Your task to perform on an android device: Go to location settings Image 0: 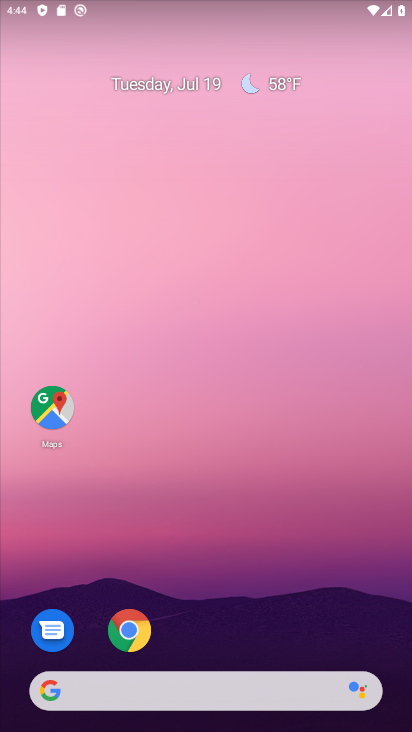
Step 0: drag from (258, 503) to (222, 298)
Your task to perform on an android device: Go to location settings Image 1: 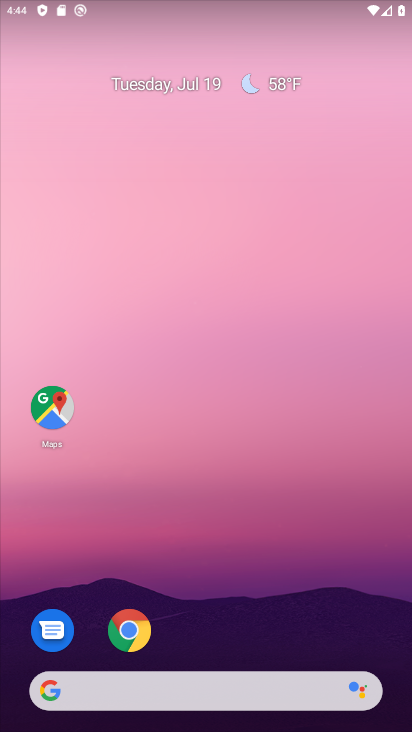
Step 1: drag from (196, 578) to (131, 107)
Your task to perform on an android device: Go to location settings Image 2: 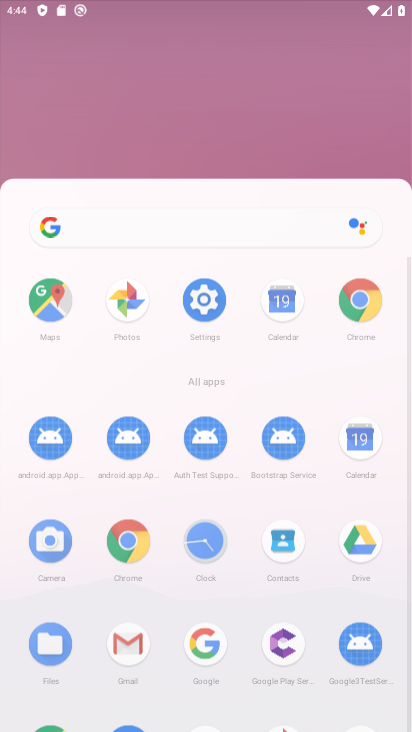
Step 2: drag from (191, 539) to (168, 287)
Your task to perform on an android device: Go to location settings Image 3: 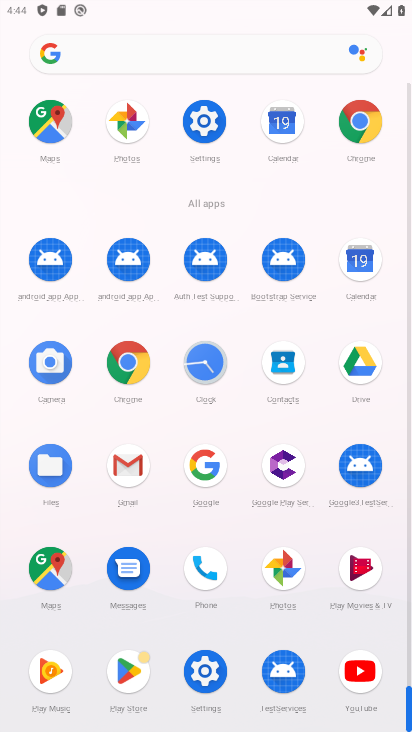
Step 3: click (190, 115)
Your task to perform on an android device: Go to location settings Image 4: 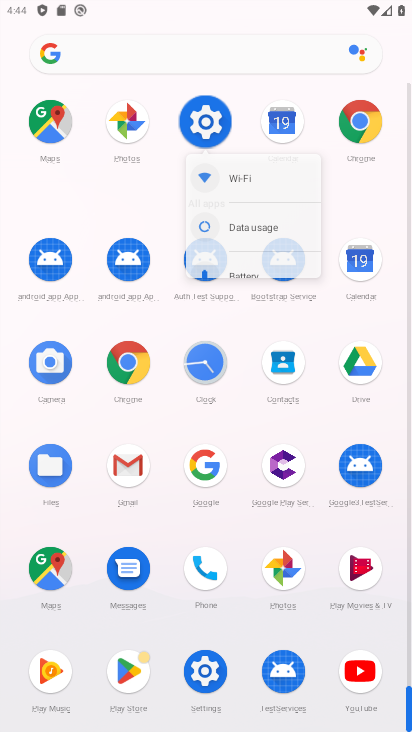
Step 4: click (202, 126)
Your task to perform on an android device: Go to location settings Image 5: 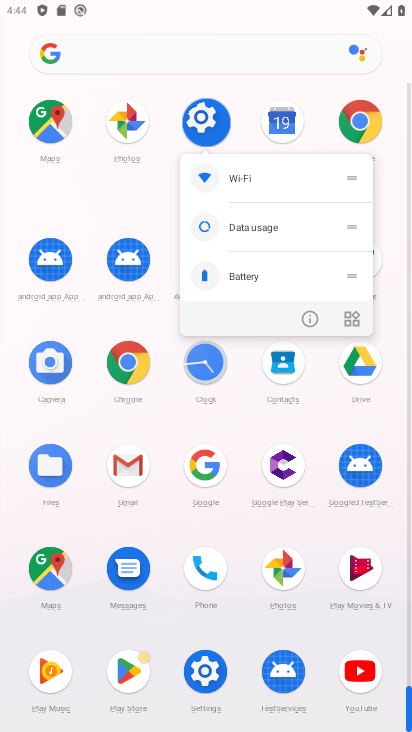
Step 5: click (202, 126)
Your task to perform on an android device: Go to location settings Image 6: 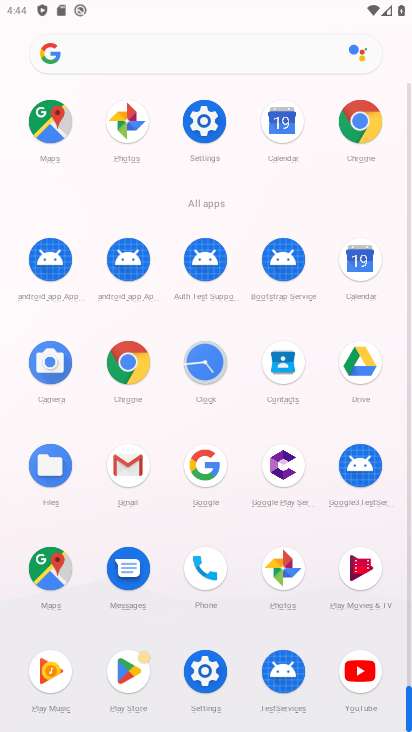
Step 6: click (203, 126)
Your task to perform on an android device: Go to location settings Image 7: 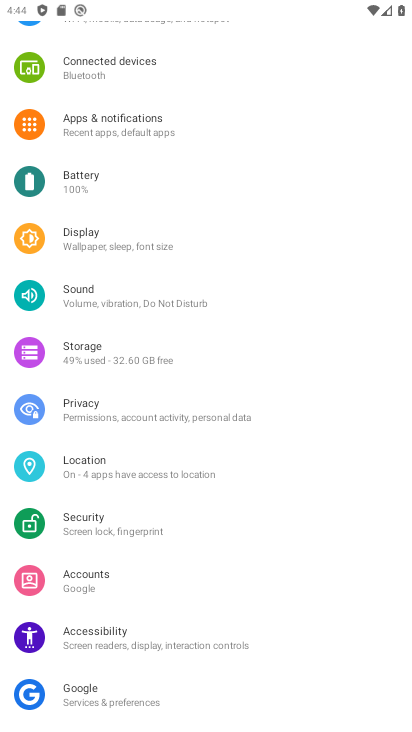
Step 7: click (79, 456)
Your task to perform on an android device: Go to location settings Image 8: 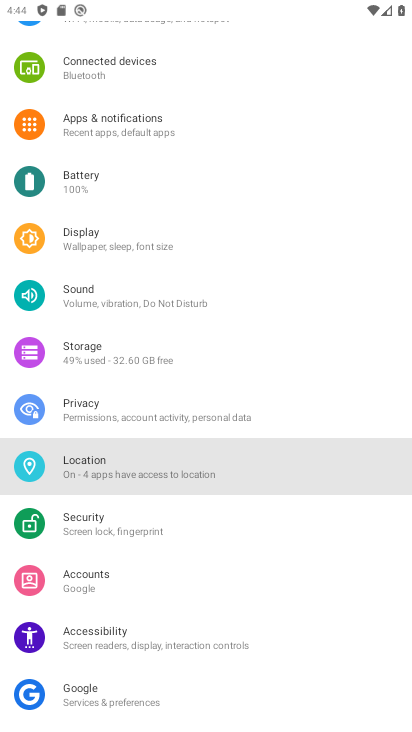
Step 8: click (78, 460)
Your task to perform on an android device: Go to location settings Image 9: 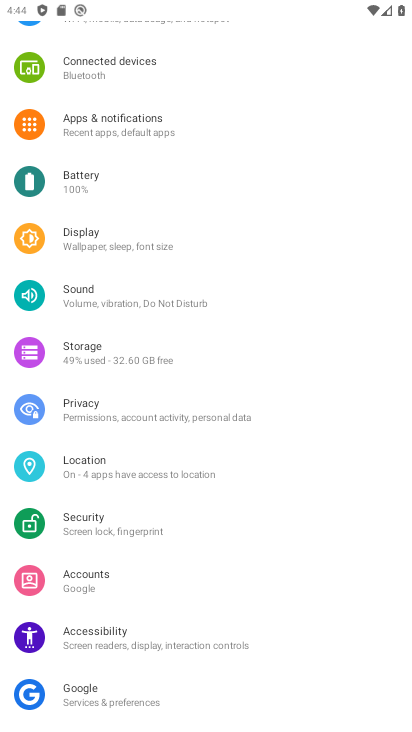
Step 9: click (78, 464)
Your task to perform on an android device: Go to location settings Image 10: 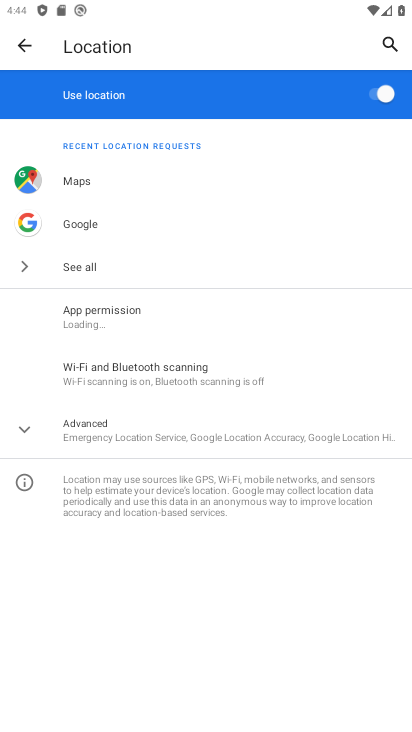
Step 10: task complete